Your task to perform on an android device: turn off sleep mode Image 0: 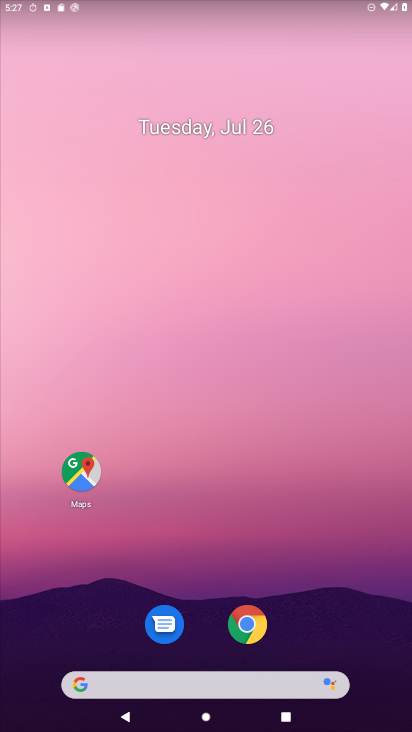
Step 0: drag from (284, 634) to (319, 12)
Your task to perform on an android device: turn off sleep mode Image 1: 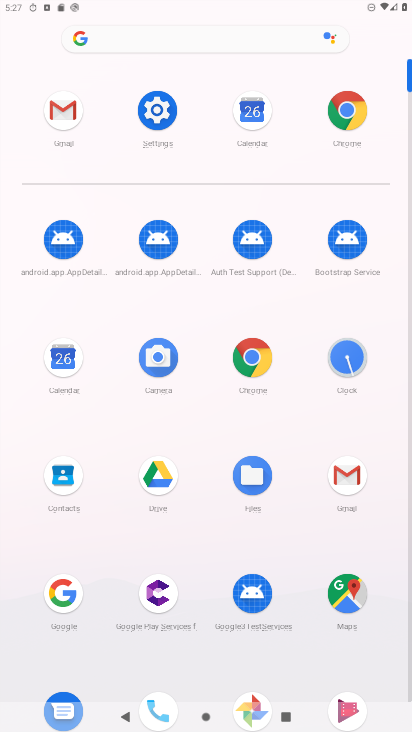
Step 1: click (160, 126)
Your task to perform on an android device: turn off sleep mode Image 2: 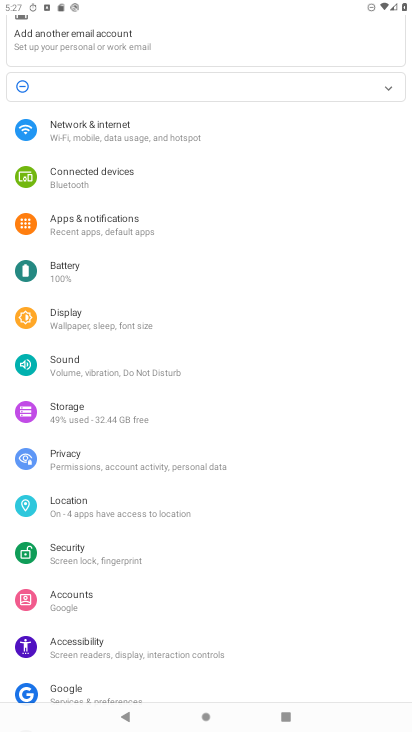
Step 2: click (132, 318)
Your task to perform on an android device: turn off sleep mode Image 3: 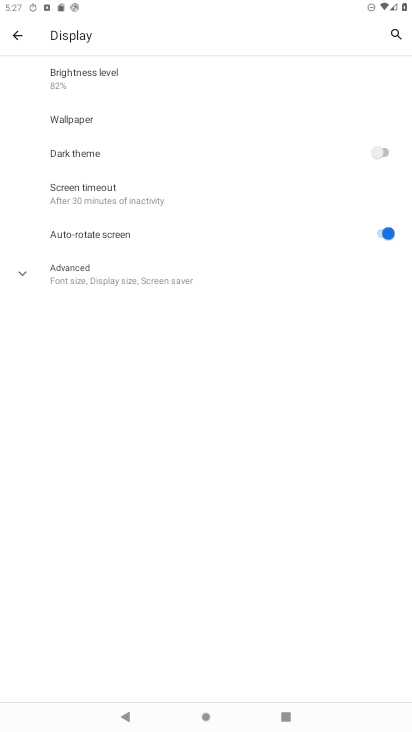
Step 3: task complete